Your task to perform on an android device: Open the stopwatch Image 0: 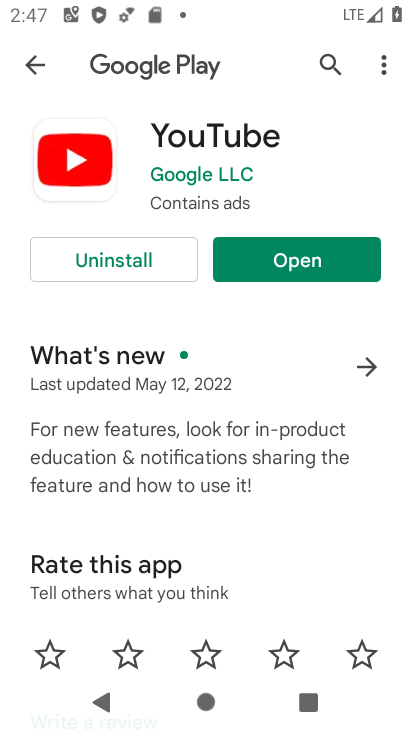
Step 0: press home button
Your task to perform on an android device: Open the stopwatch Image 1: 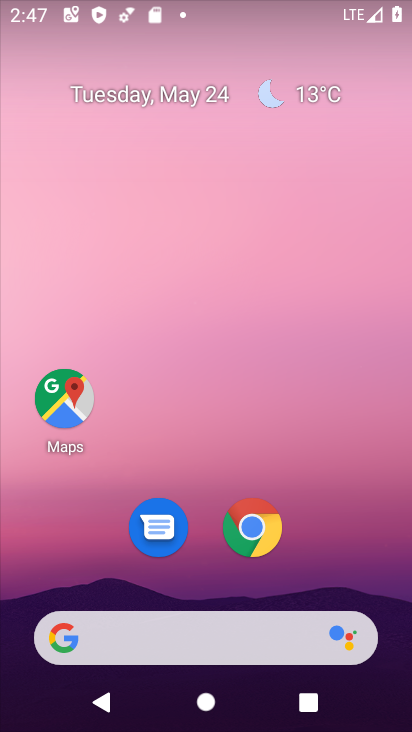
Step 1: drag from (295, 585) to (298, 70)
Your task to perform on an android device: Open the stopwatch Image 2: 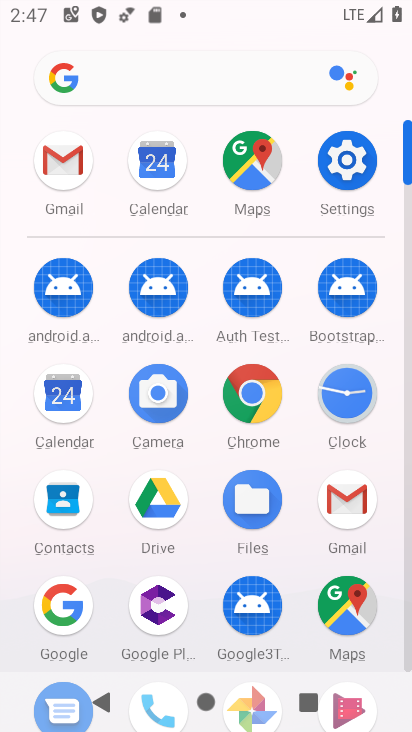
Step 2: click (345, 407)
Your task to perform on an android device: Open the stopwatch Image 3: 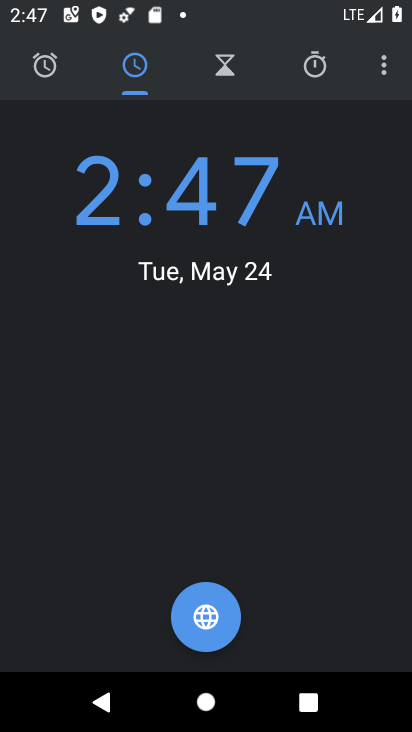
Step 3: click (301, 81)
Your task to perform on an android device: Open the stopwatch Image 4: 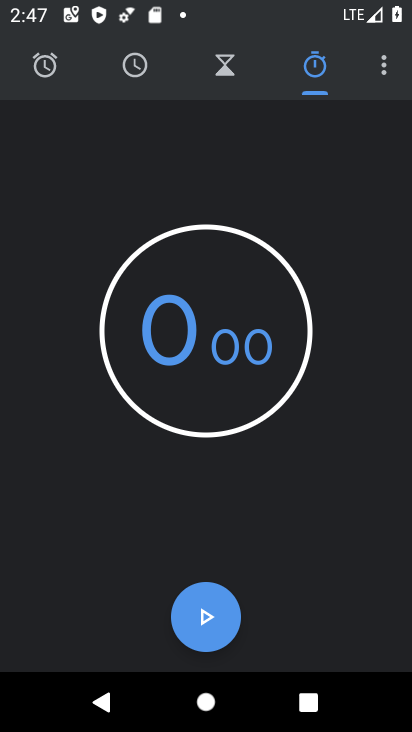
Step 4: task complete